Your task to perform on an android device: check storage Image 0: 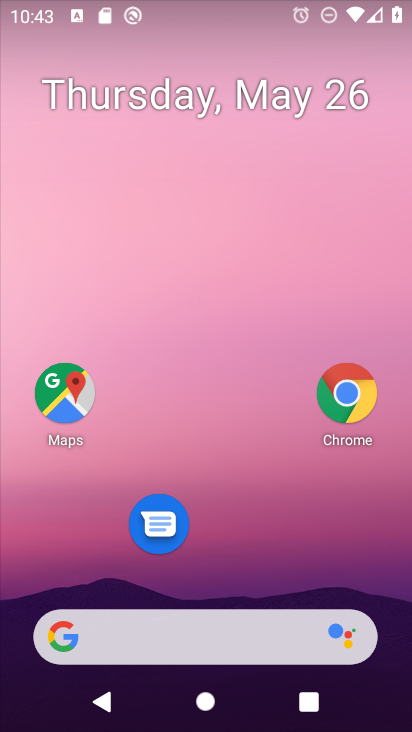
Step 0: drag from (262, 546) to (281, 48)
Your task to perform on an android device: check storage Image 1: 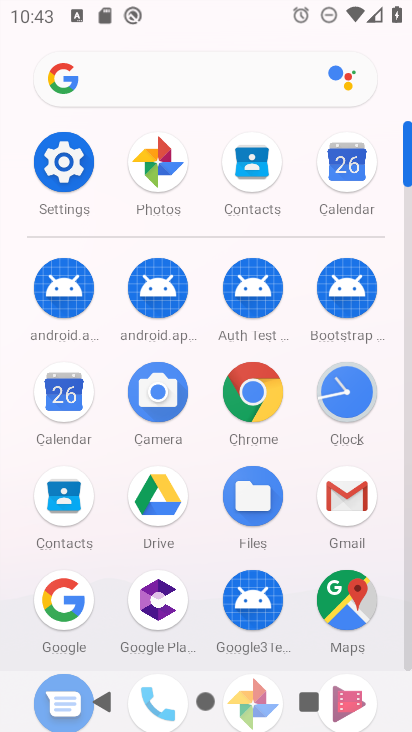
Step 1: click (82, 164)
Your task to perform on an android device: check storage Image 2: 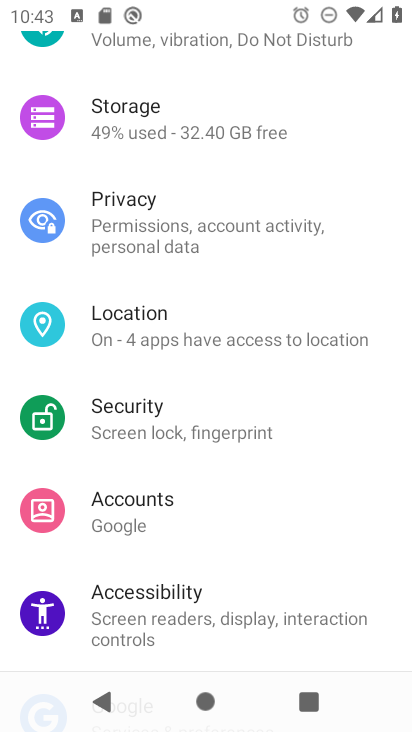
Step 2: click (110, 135)
Your task to perform on an android device: check storage Image 3: 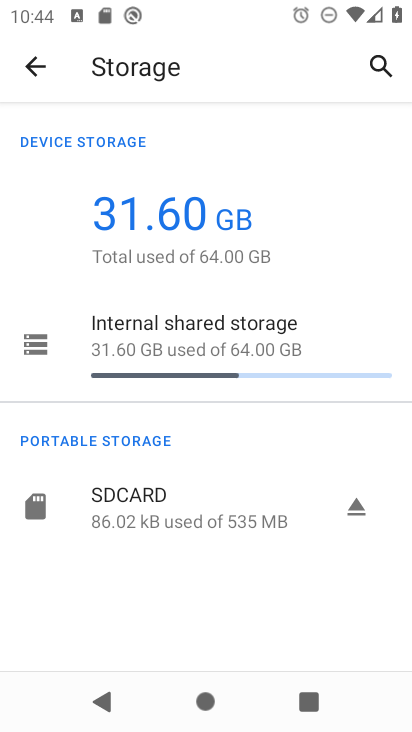
Step 3: task complete